Your task to perform on an android device: turn pop-ups off in chrome Image 0: 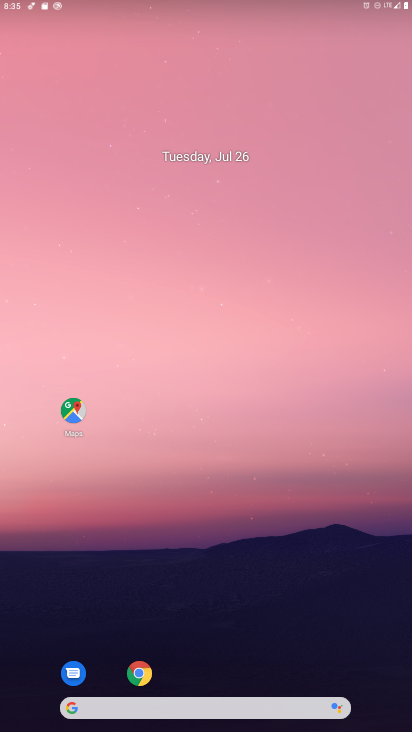
Step 0: click (219, 32)
Your task to perform on an android device: turn pop-ups off in chrome Image 1: 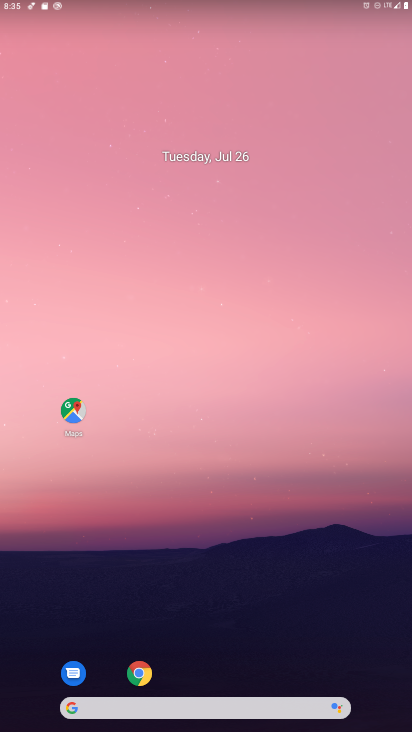
Step 1: drag from (316, 591) to (141, 43)
Your task to perform on an android device: turn pop-ups off in chrome Image 2: 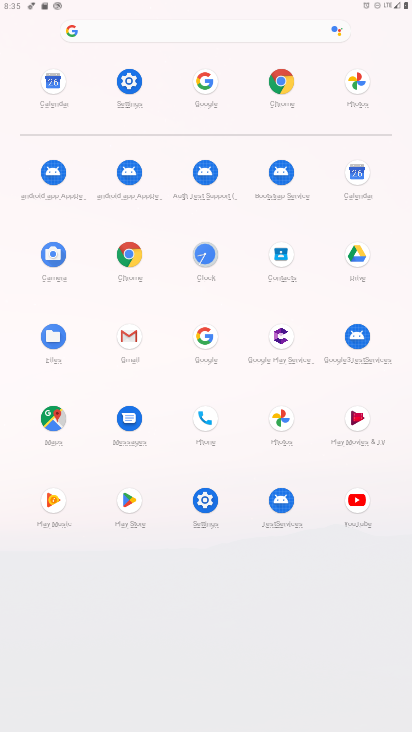
Step 2: click (133, 264)
Your task to perform on an android device: turn pop-ups off in chrome Image 3: 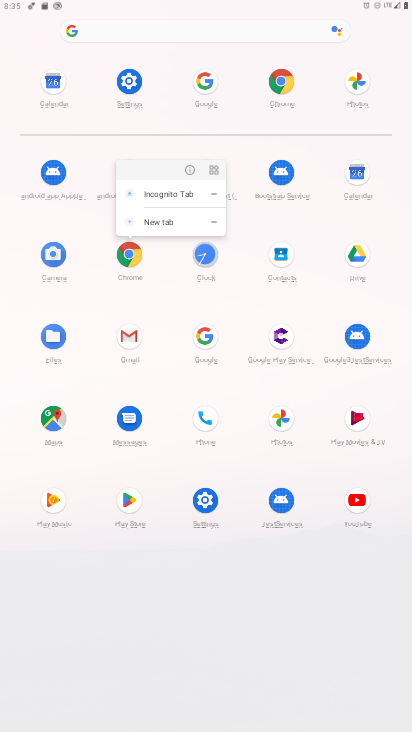
Step 3: click (133, 264)
Your task to perform on an android device: turn pop-ups off in chrome Image 4: 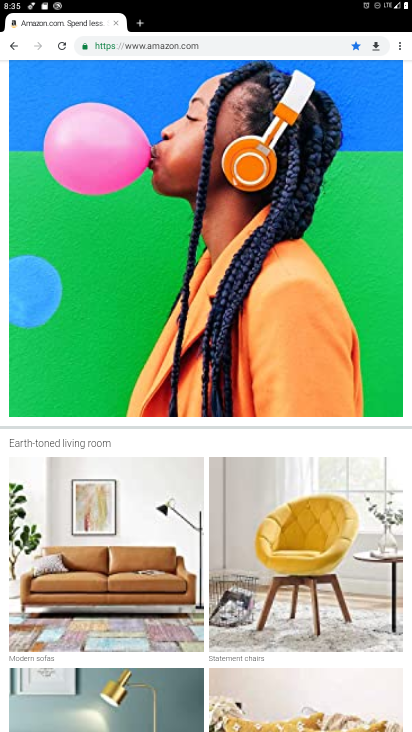
Step 4: click (403, 39)
Your task to perform on an android device: turn pop-ups off in chrome Image 5: 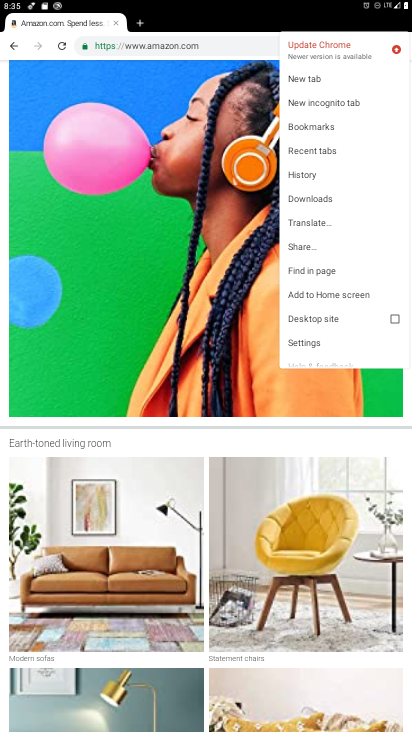
Step 5: click (312, 340)
Your task to perform on an android device: turn pop-ups off in chrome Image 6: 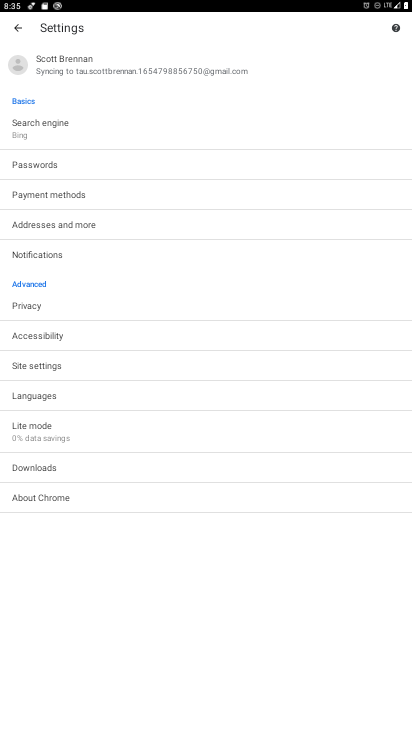
Step 6: click (82, 368)
Your task to perform on an android device: turn pop-ups off in chrome Image 7: 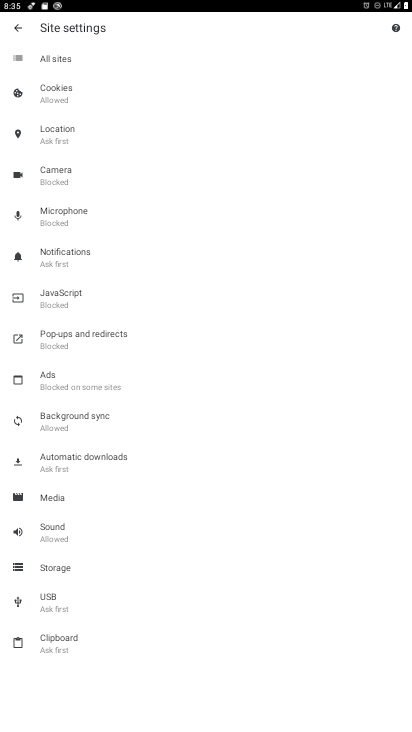
Step 7: click (71, 340)
Your task to perform on an android device: turn pop-ups off in chrome Image 8: 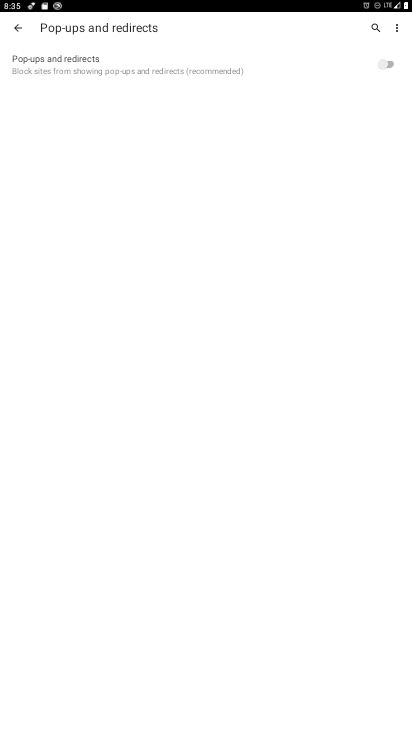
Step 8: click (386, 65)
Your task to perform on an android device: turn pop-ups off in chrome Image 9: 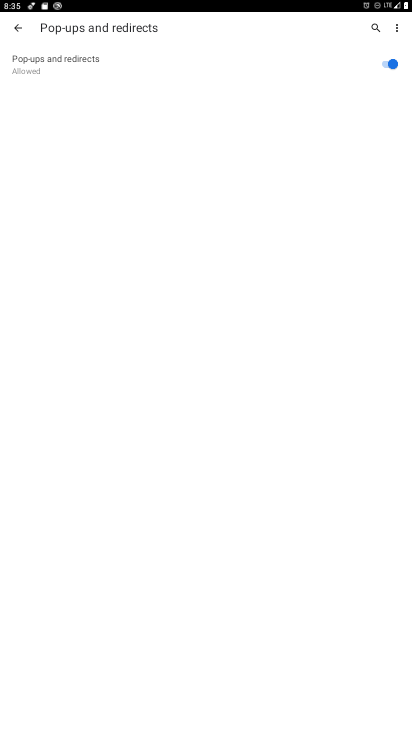
Step 9: click (386, 65)
Your task to perform on an android device: turn pop-ups off in chrome Image 10: 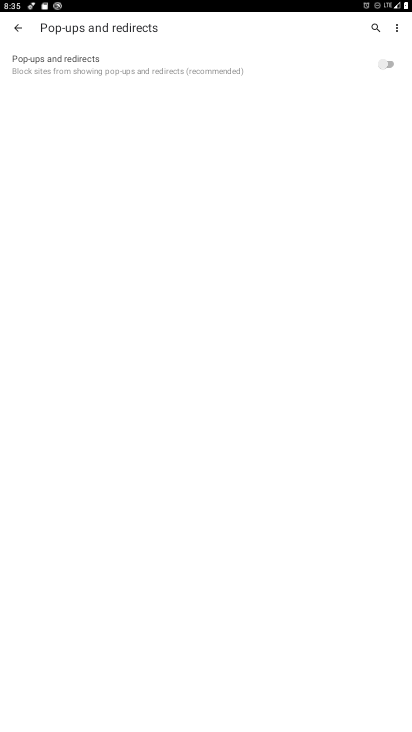
Step 10: task complete